Your task to perform on an android device: toggle priority inbox in the gmail app Image 0: 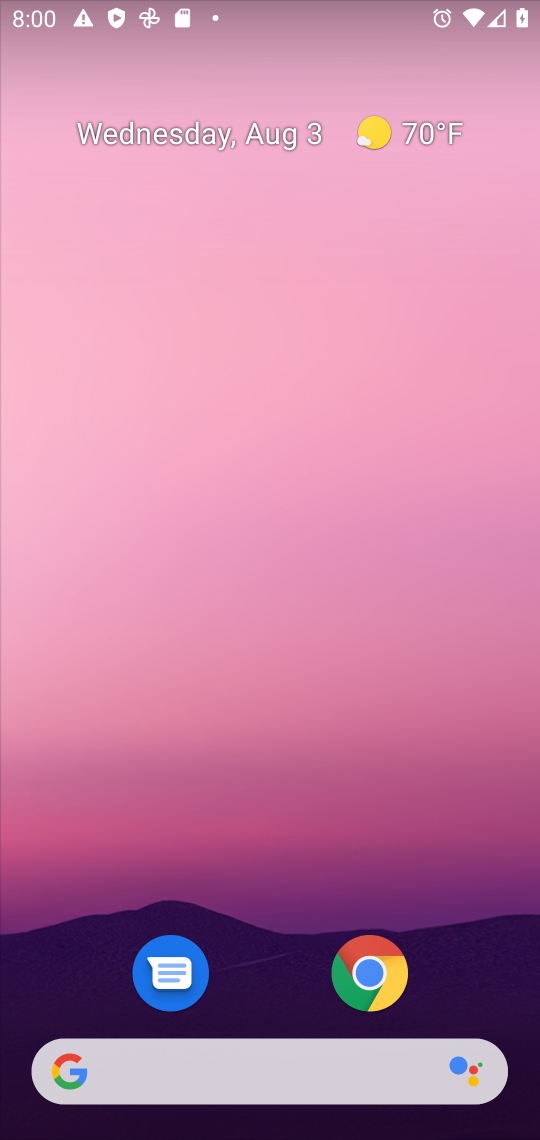
Step 0: drag from (226, 961) to (183, 477)
Your task to perform on an android device: toggle priority inbox in the gmail app Image 1: 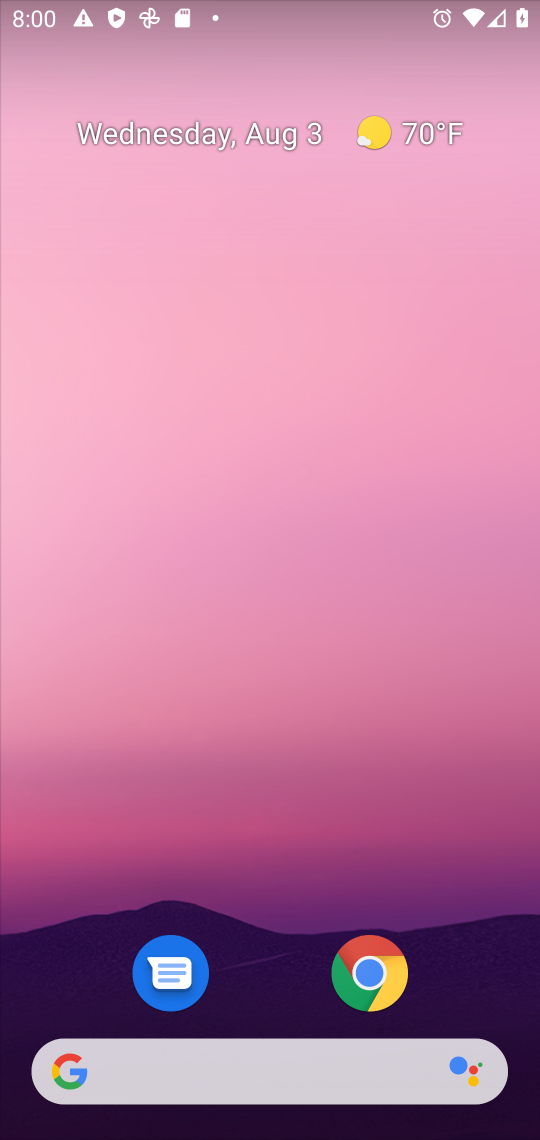
Step 1: drag from (249, 967) to (191, 309)
Your task to perform on an android device: toggle priority inbox in the gmail app Image 2: 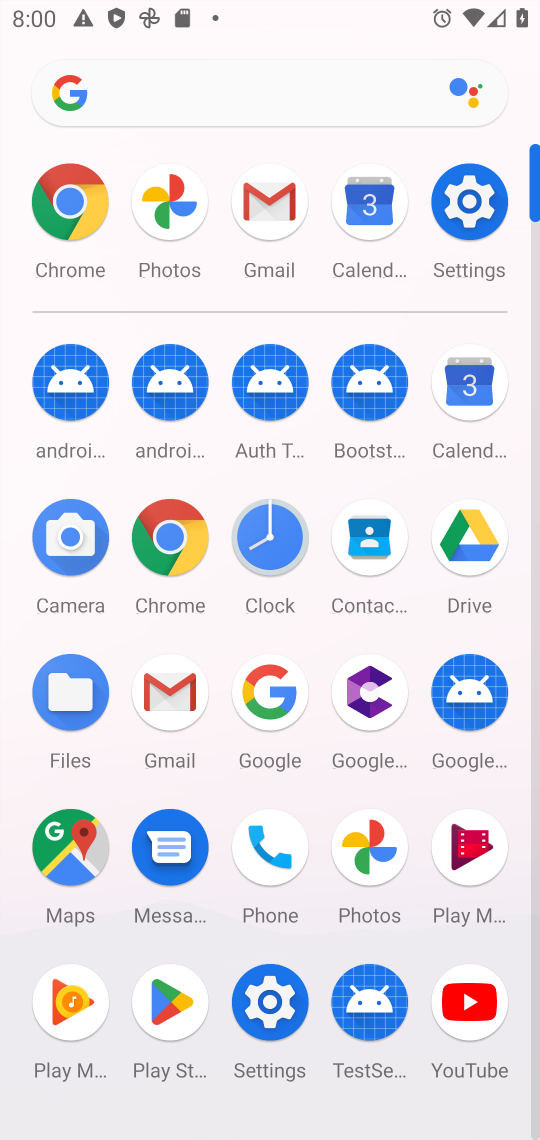
Step 2: click (273, 200)
Your task to perform on an android device: toggle priority inbox in the gmail app Image 3: 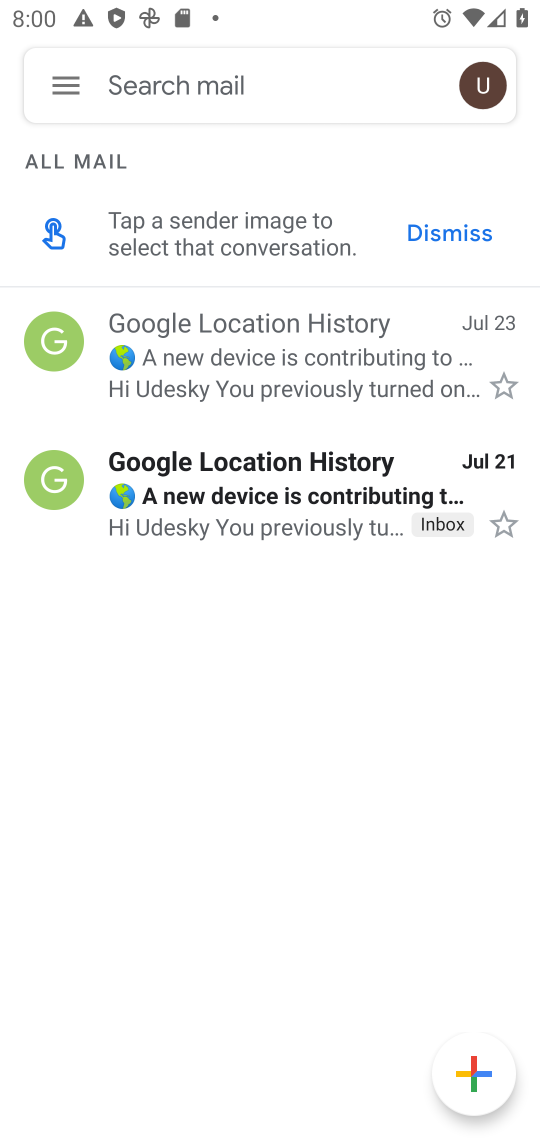
Step 3: click (73, 89)
Your task to perform on an android device: toggle priority inbox in the gmail app Image 4: 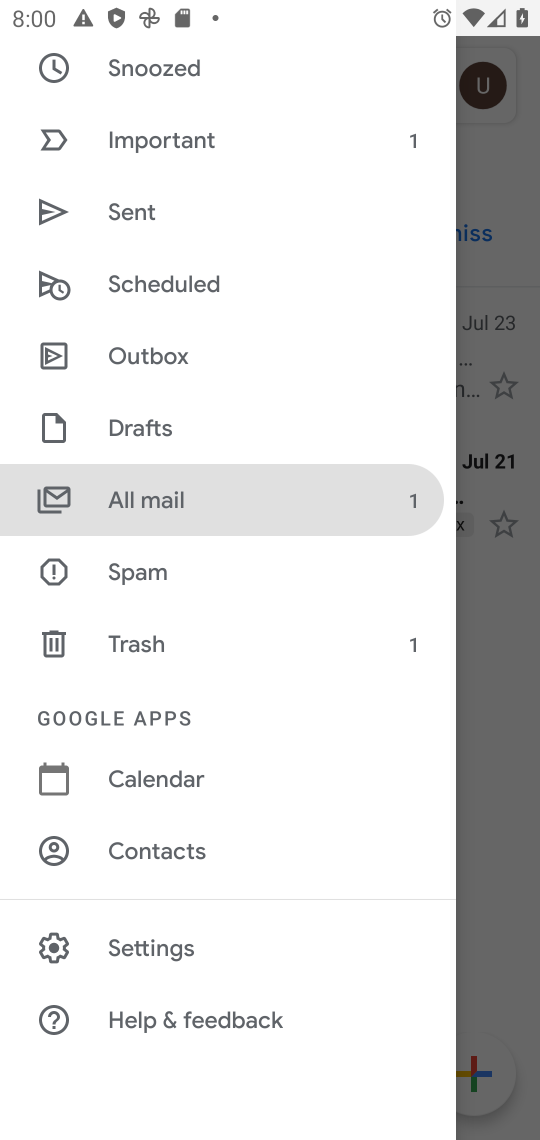
Step 4: click (162, 957)
Your task to perform on an android device: toggle priority inbox in the gmail app Image 5: 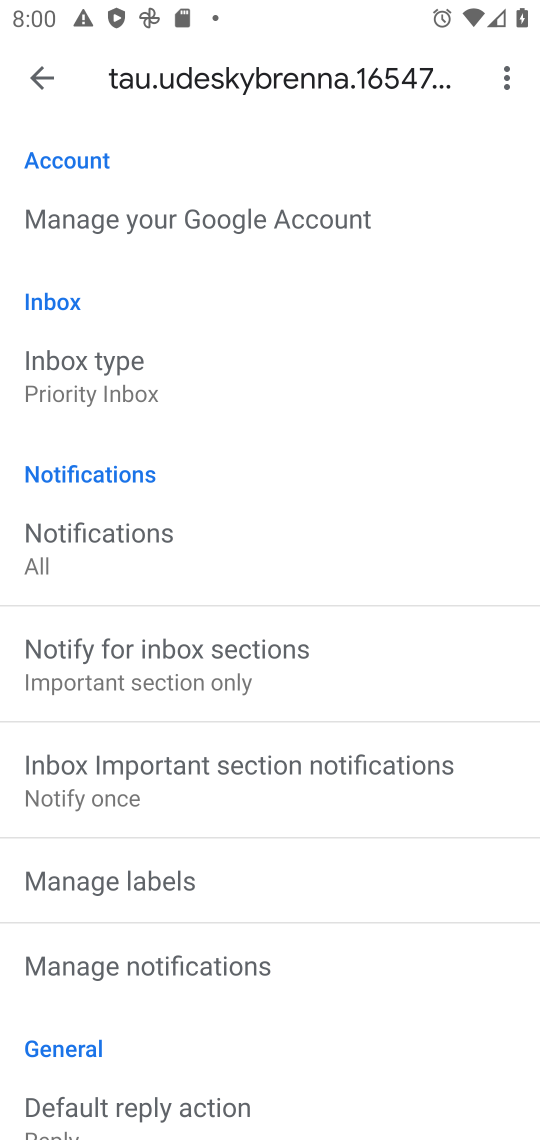
Step 5: click (76, 371)
Your task to perform on an android device: toggle priority inbox in the gmail app Image 6: 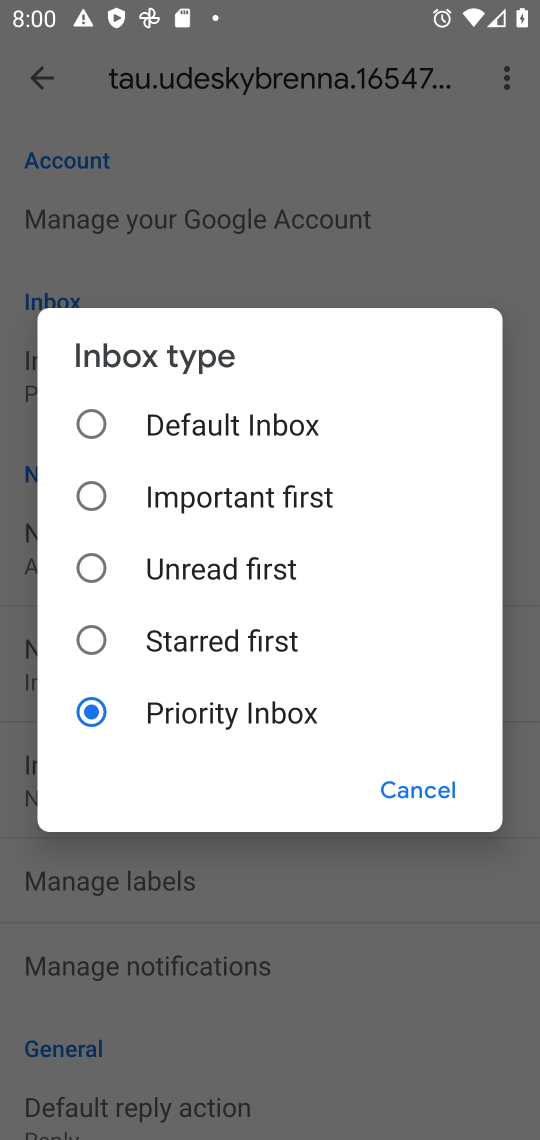
Step 6: click (98, 428)
Your task to perform on an android device: toggle priority inbox in the gmail app Image 7: 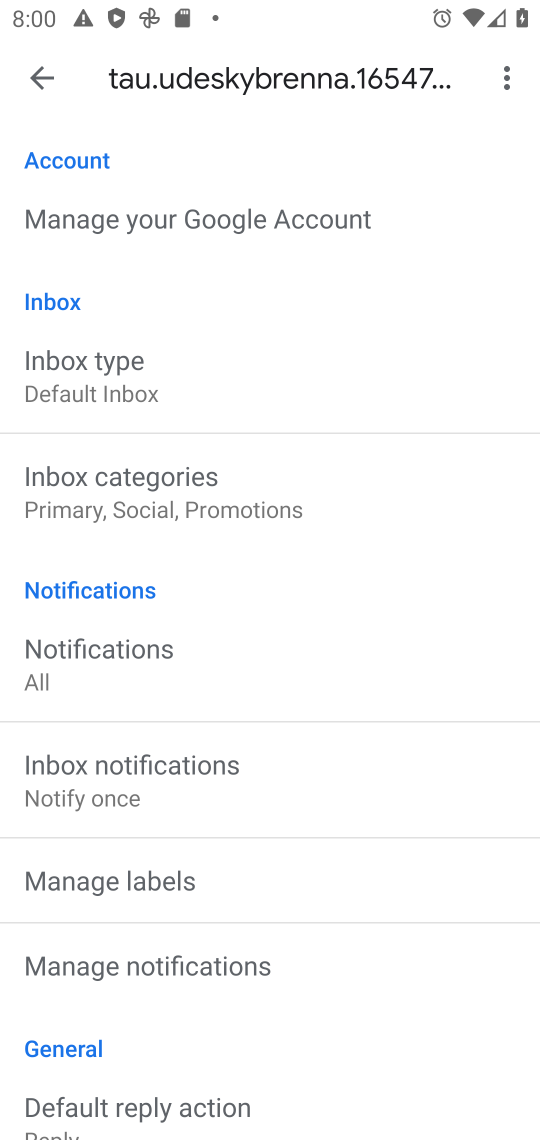
Step 7: task complete